Your task to perform on an android device: open app "LinkedIn" (install if not already installed), go to login, and select forgot password Image 0: 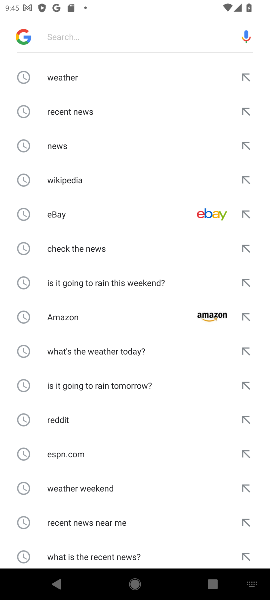
Step 0: press home button
Your task to perform on an android device: open app "LinkedIn" (install if not already installed), go to login, and select forgot password Image 1: 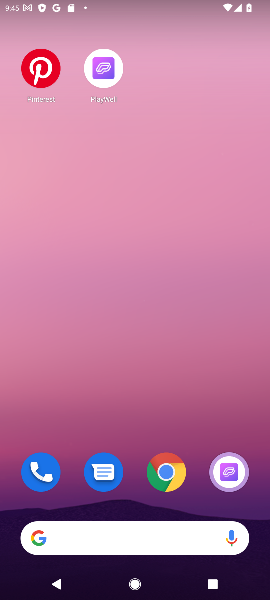
Step 1: drag from (183, 444) to (141, 171)
Your task to perform on an android device: open app "LinkedIn" (install if not already installed), go to login, and select forgot password Image 2: 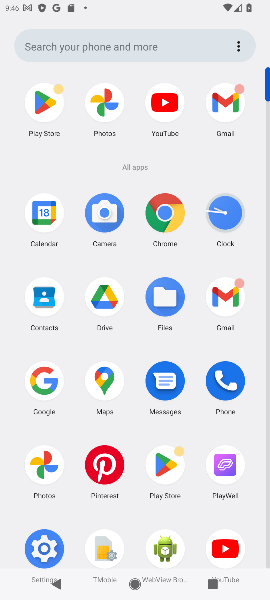
Step 2: click (165, 458)
Your task to perform on an android device: open app "LinkedIn" (install if not already installed), go to login, and select forgot password Image 3: 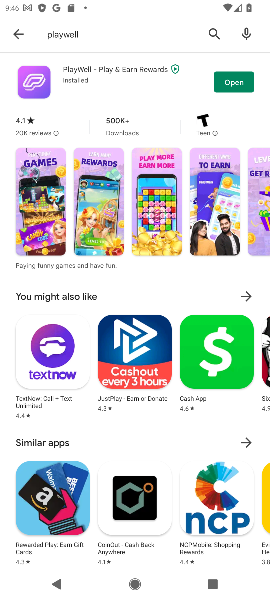
Step 3: click (210, 34)
Your task to perform on an android device: open app "LinkedIn" (install if not already installed), go to login, and select forgot password Image 4: 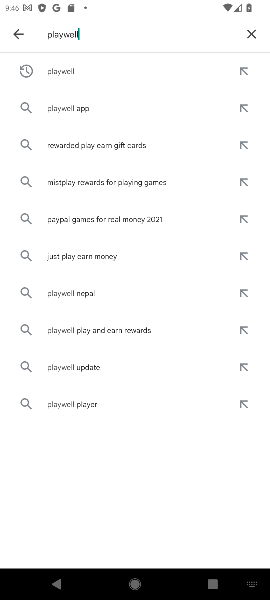
Step 4: click (252, 36)
Your task to perform on an android device: open app "LinkedIn" (install if not already installed), go to login, and select forgot password Image 5: 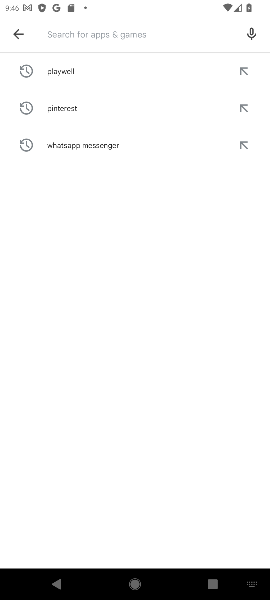
Step 5: type "linkedin"
Your task to perform on an android device: open app "LinkedIn" (install if not already installed), go to login, and select forgot password Image 6: 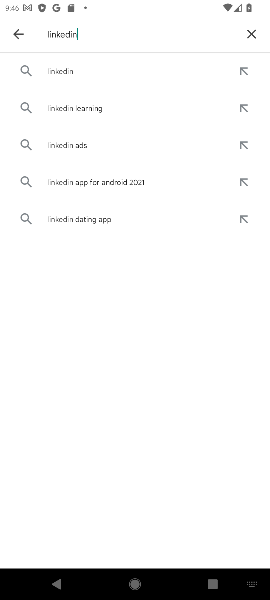
Step 6: click (115, 69)
Your task to perform on an android device: open app "LinkedIn" (install if not already installed), go to login, and select forgot password Image 7: 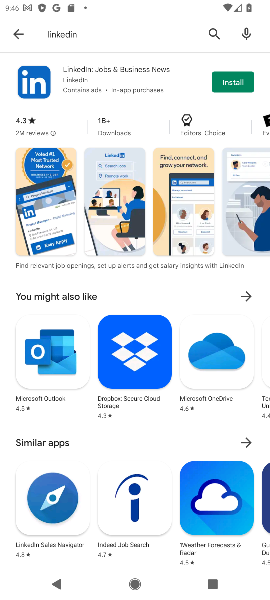
Step 7: click (235, 86)
Your task to perform on an android device: open app "LinkedIn" (install if not already installed), go to login, and select forgot password Image 8: 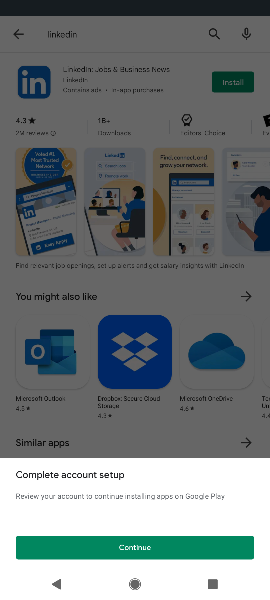
Step 8: click (187, 555)
Your task to perform on an android device: open app "LinkedIn" (install if not already installed), go to login, and select forgot password Image 9: 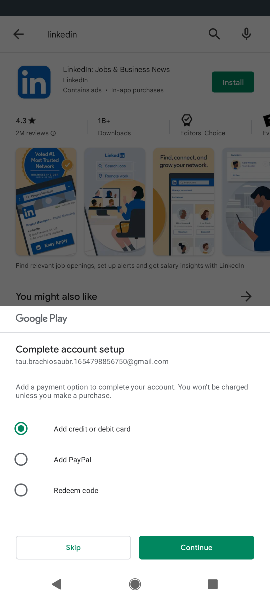
Step 9: click (55, 547)
Your task to perform on an android device: open app "LinkedIn" (install if not already installed), go to login, and select forgot password Image 10: 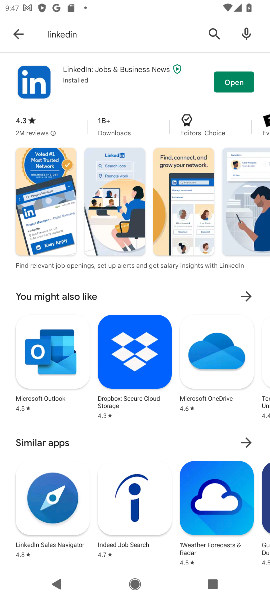
Step 10: click (228, 88)
Your task to perform on an android device: open app "LinkedIn" (install if not already installed), go to login, and select forgot password Image 11: 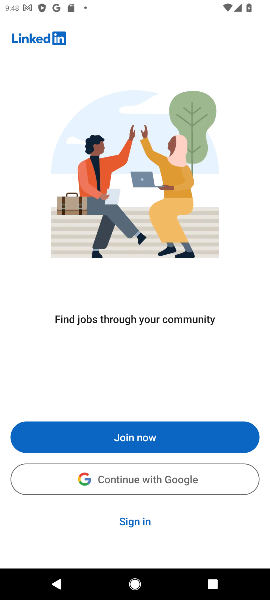
Step 11: click (133, 527)
Your task to perform on an android device: open app "LinkedIn" (install if not already installed), go to login, and select forgot password Image 12: 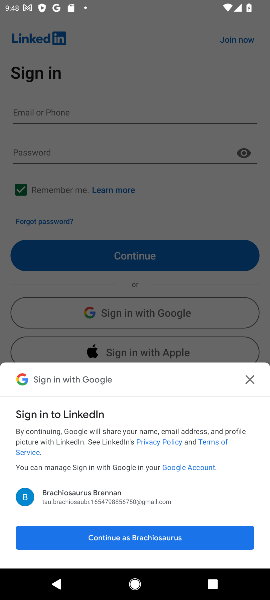
Step 12: click (253, 380)
Your task to perform on an android device: open app "LinkedIn" (install if not already installed), go to login, and select forgot password Image 13: 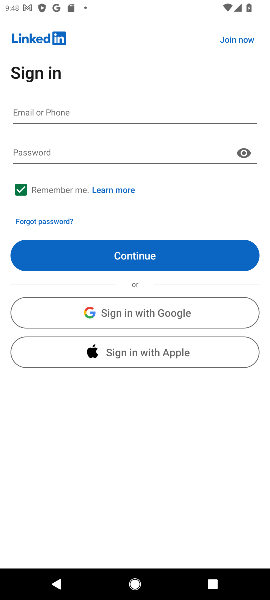
Step 13: click (39, 221)
Your task to perform on an android device: open app "LinkedIn" (install if not already installed), go to login, and select forgot password Image 14: 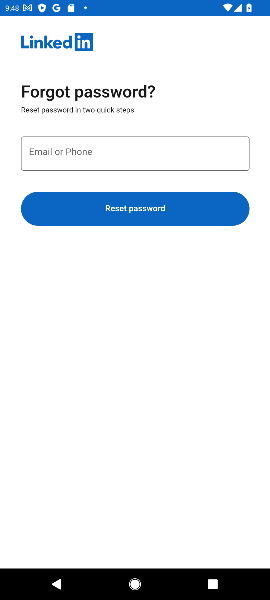
Step 14: task complete